Your task to perform on an android device: toggle wifi Image 0: 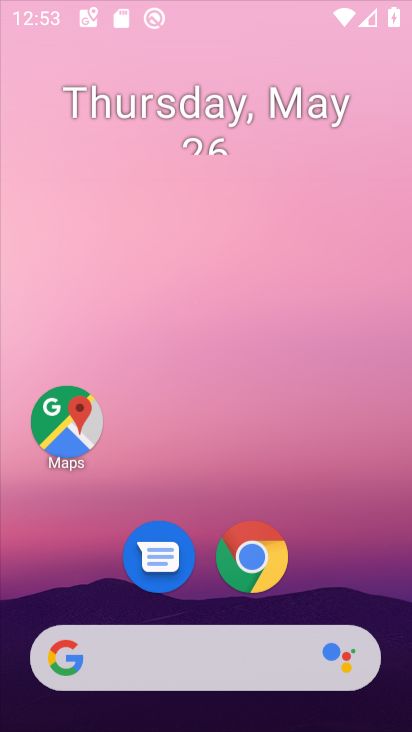
Step 0: press home button
Your task to perform on an android device: toggle wifi Image 1: 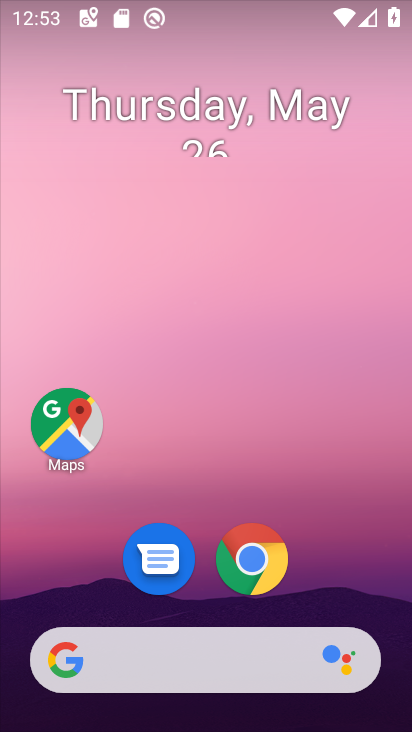
Step 1: drag from (207, 10) to (190, 412)
Your task to perform on an android device: toggle wifi Image 2: 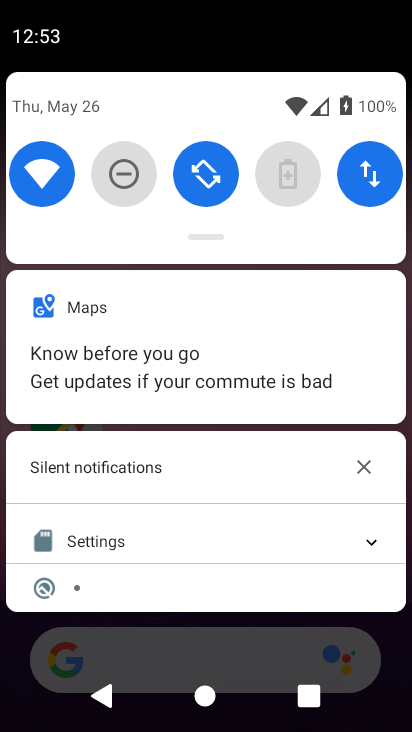
Step 2: click (35, 165)
Your task to perform on an android device: toggle wifi Image 3: 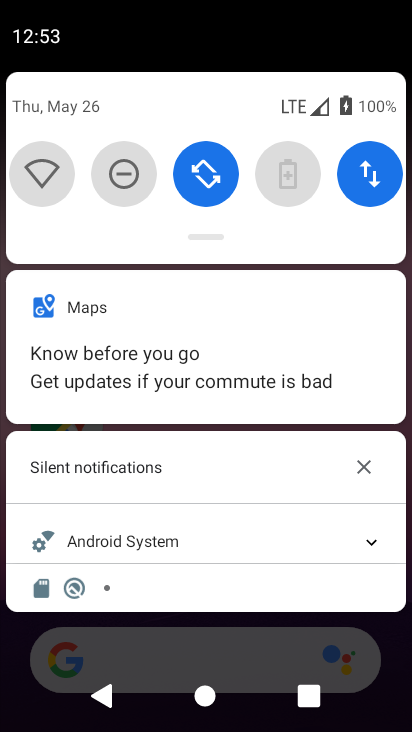
Step 3: task complete